Your task to perform on an android device: turn on notifications settings in the gmail app Image 0: 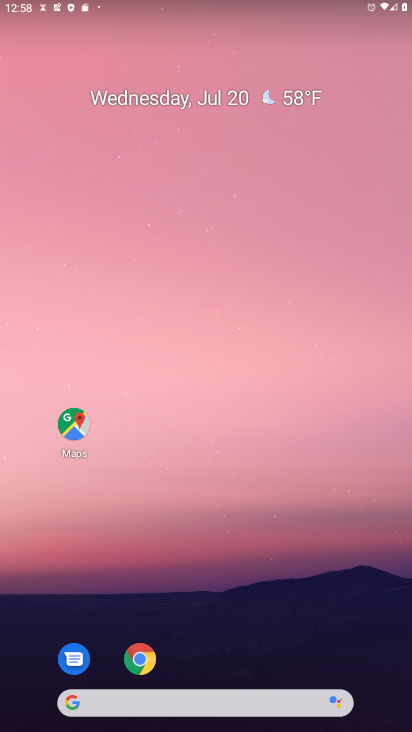
Step 0: press home button
Your task to perform on an android device: turn on notifications settings in the gmail app Image 1: 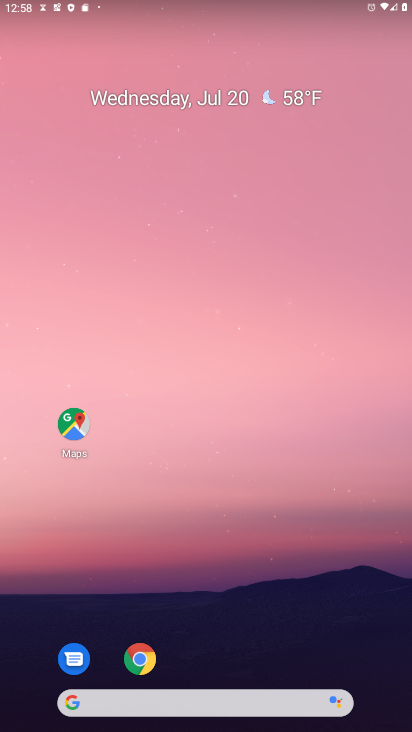
Step 1: drag from (216, 668) to (269, 37)
Your task to perform on an android device: turn on notifications settings in the gmail app Image 2: 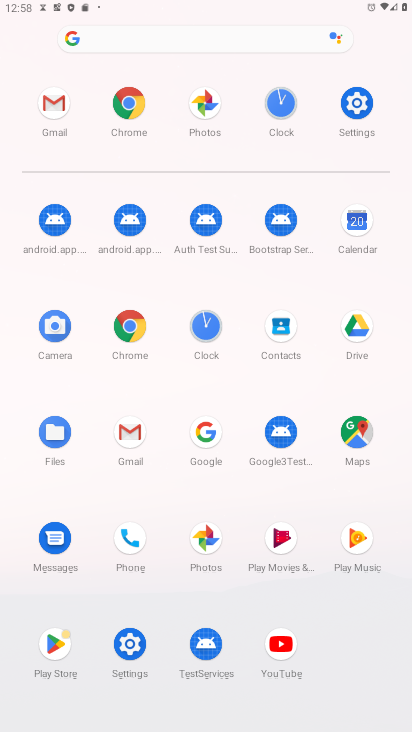
Step 2: click (128, 428)
Your task to perform on an android device: turn on notifications settings in the gmail app Image 3: 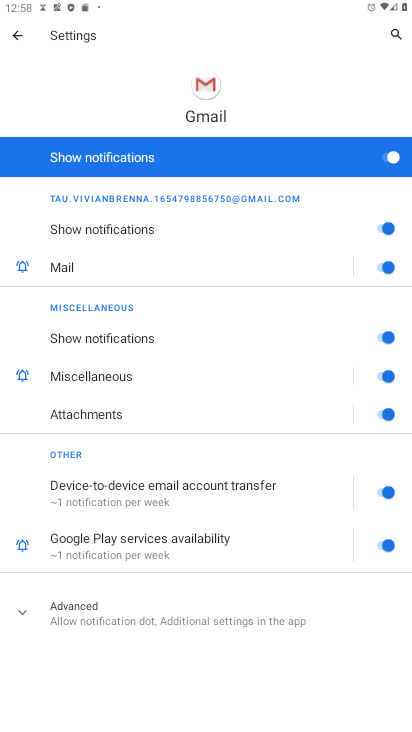
Step 3: task complete